Your task to perform on an android device: See recent photos Image 0: 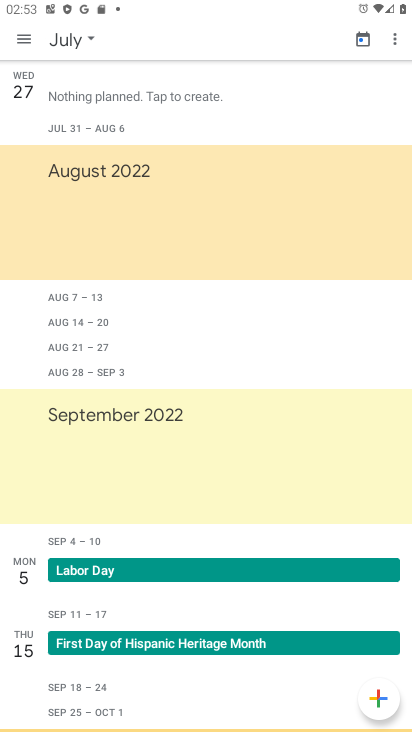
Step 0: press home button
Your task to perform on an android device: See recent photos Image 1: 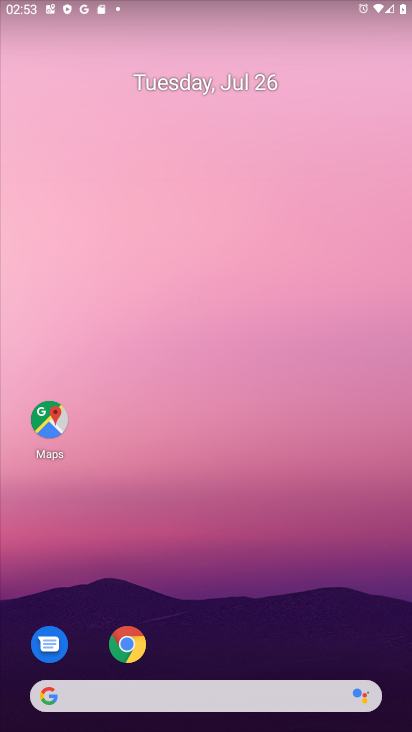
Step 1: drag from (209, 678) to (171, 39)
Your task to perform on an android device: See recent photos Image 2: 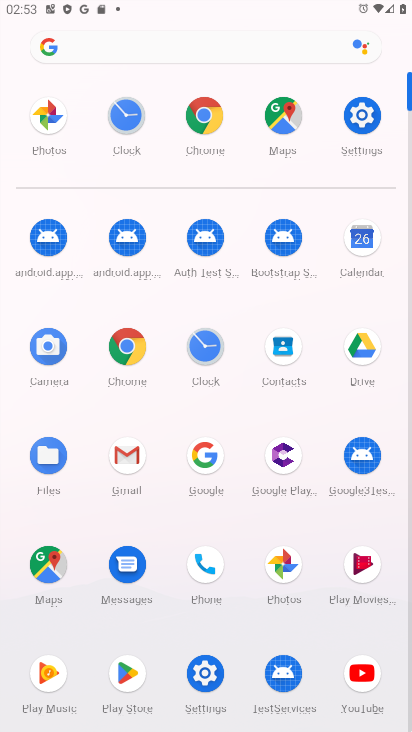
Step 2: click (272, 561)
Your task to perform on an android device: See recent photos Image 3: 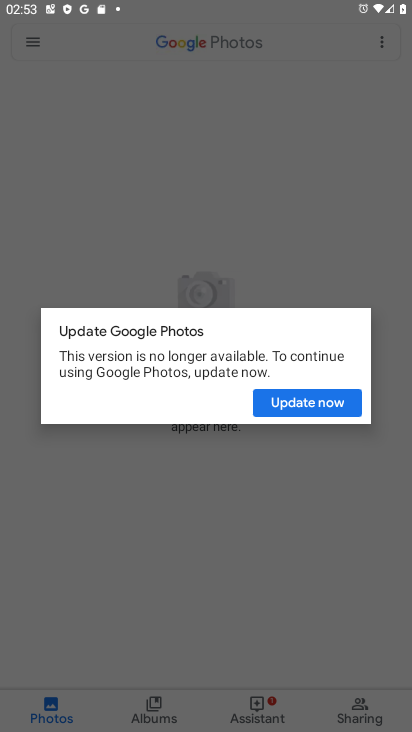
Step 3: click (299, 399)
Your task to perform on an android device: See recent photos Image 4: 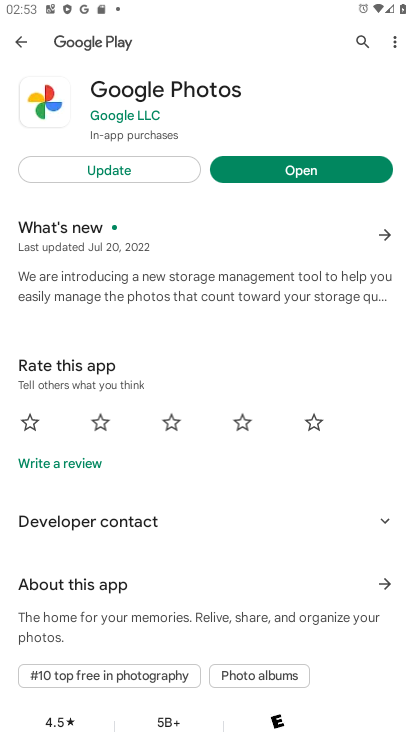
Step 4: click (121, 170)
Your task to perform on an android device: See recent photos Image 5: 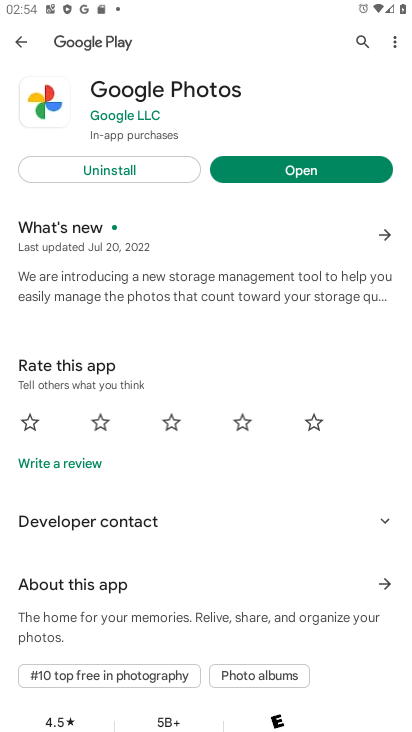
Step 5: click (298, 168)
Your task to perform on an android device: See recent photos Image 6: 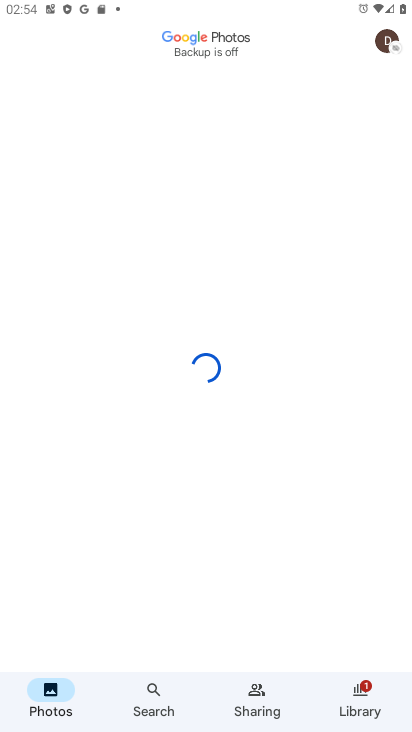
Step 6: task complete